Your task to perform on an android device: all mails in gmail Image 0: 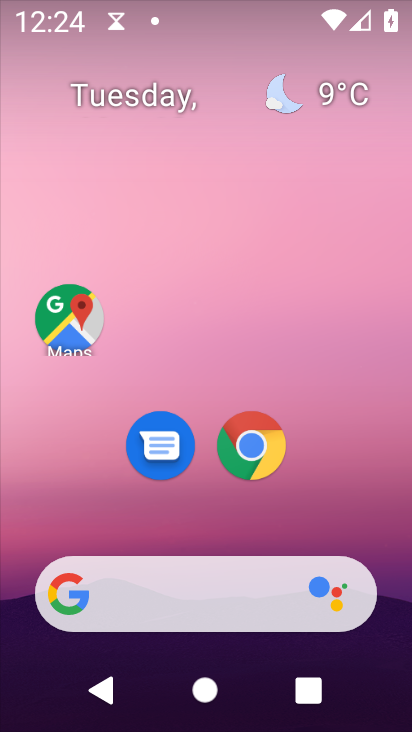
Step 0: drag from (278, 592) to (362, 10)
Your task to perform on an android device: all mails in gmail Image 1: 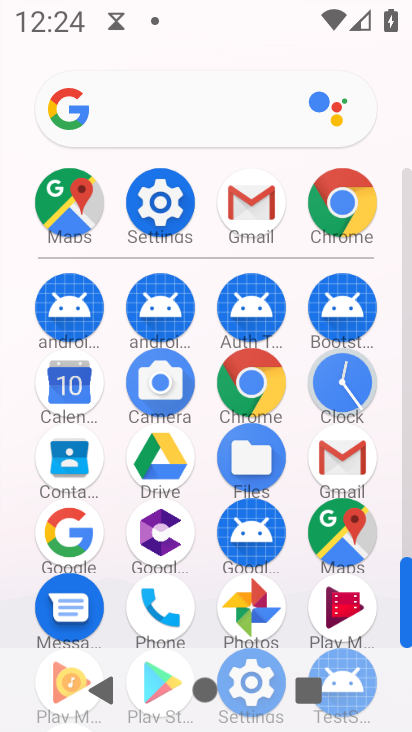
Step 1: click (338, 473)
Your task to perform on an android device: all mails in gmail Image 2: 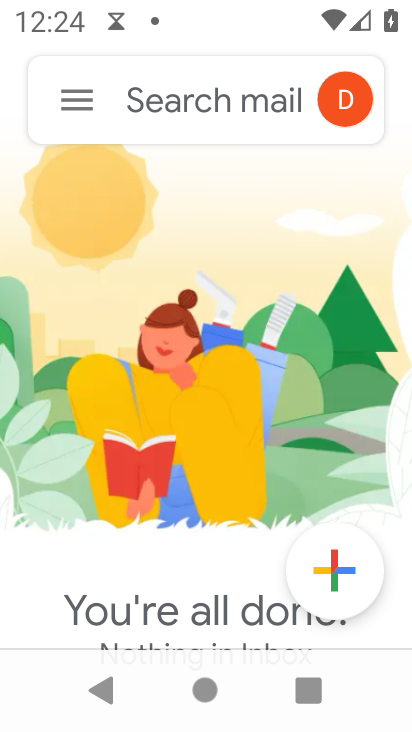
Step 2: click (59, 89)
Your task to perform on an android device: all mails in gmail Image 3: 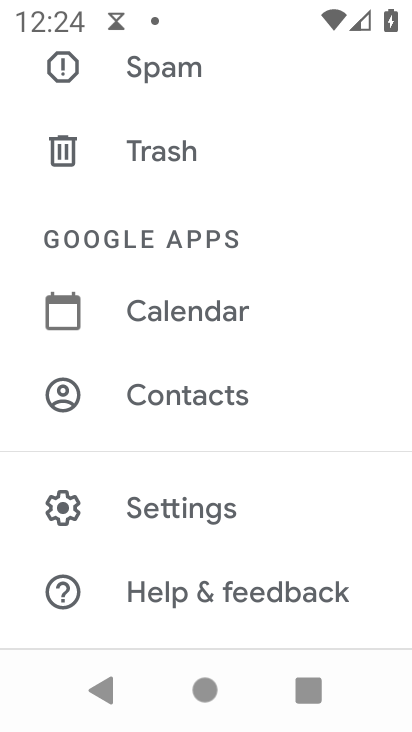
Step 3: drag from (161, 193) to (279, 611)
Your task to perform on an android device: all mails in gmail Image 4: 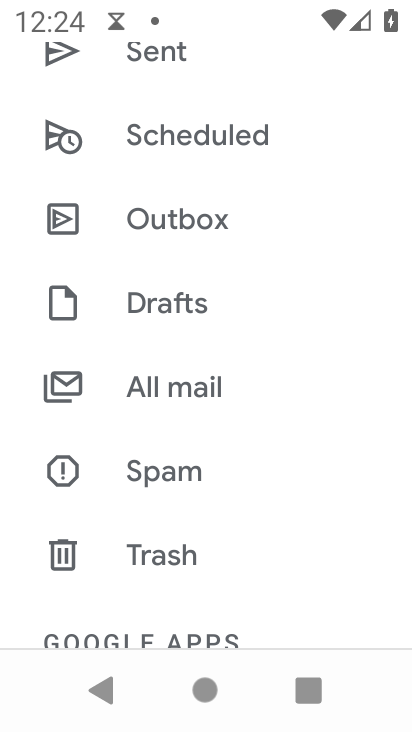
Step 4: drag from (271, 241) to (302, 443)
Your task to perform on an android device: all mails in gmail Image 5: 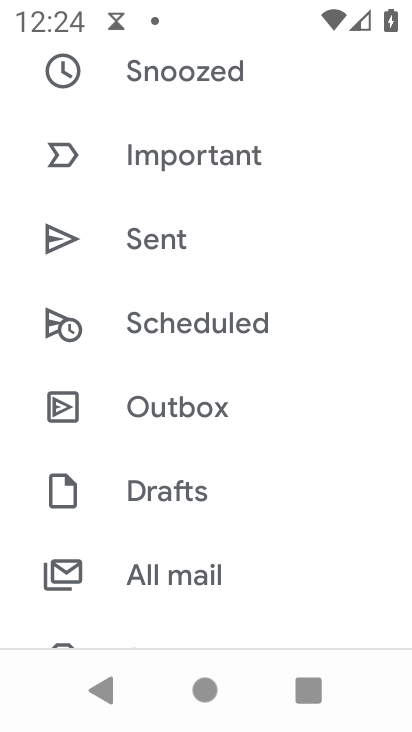
Step 5: click (237, 590)
Your task to perform on an android device: all mails in gmail Image 6: 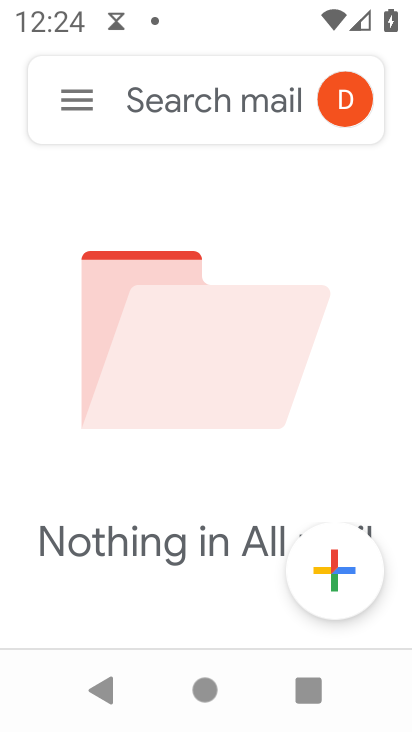
Step 6: task complete